Your task to perform on an android device: Go to Reddit.com Image 0: 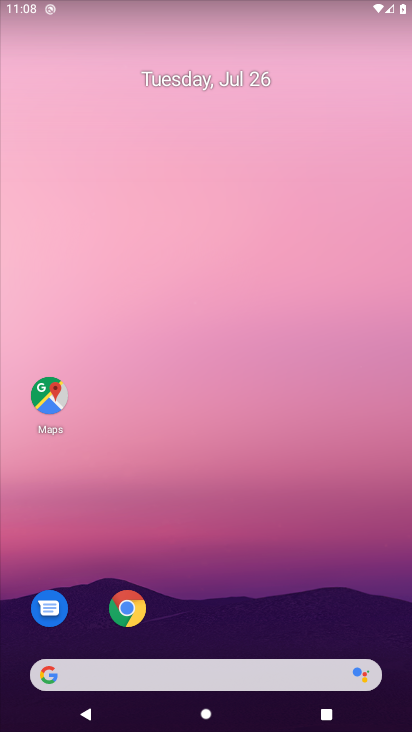
Step 0: press home button
Your task to perform on an android device: Go to Reddit.com Image 1: 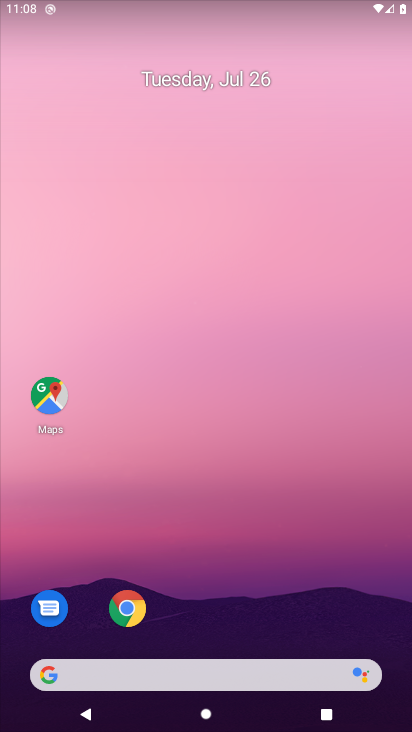
Step 1: click (47, 676)
Your task to perform on an android device: Go to Reddit.com Image 2: 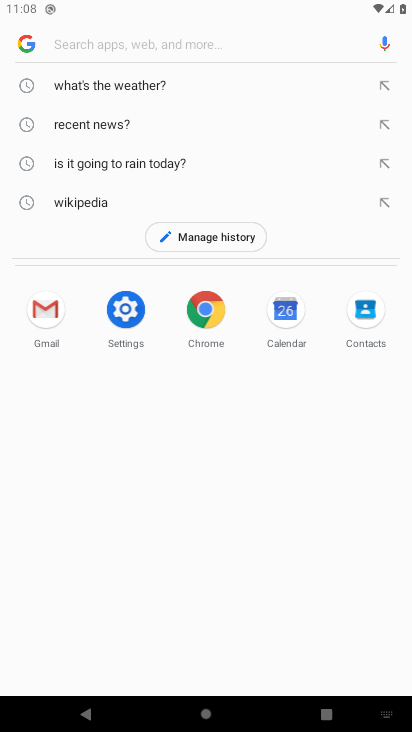
Step 2: type " Reddit.com"
Your task to perform on an android device: Go to Reddit.com Image 3: 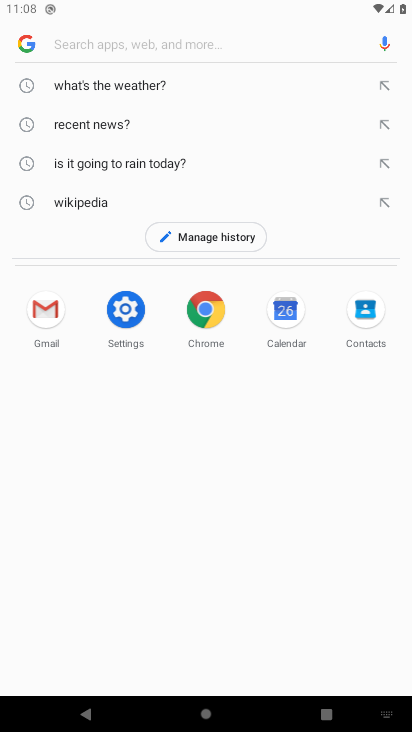
Step 3: click (73, 38)
Your task to perform on an android device: Go to Reddit.com Image 4: 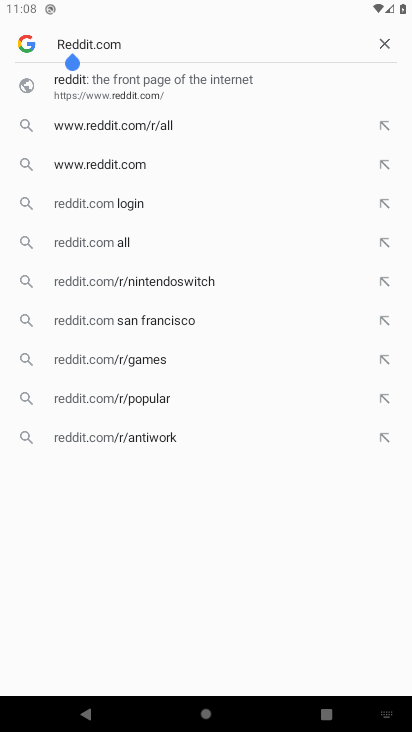
Step 4: press enter
Your task to perform on an android device: Go to Reddit.com Image 5: 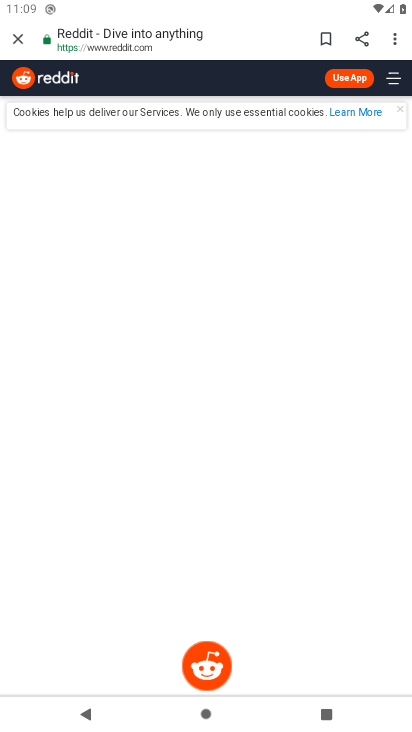
Step 5: task complete